Your task to perform on an android device: change notification settings in the gmail app Image 0: 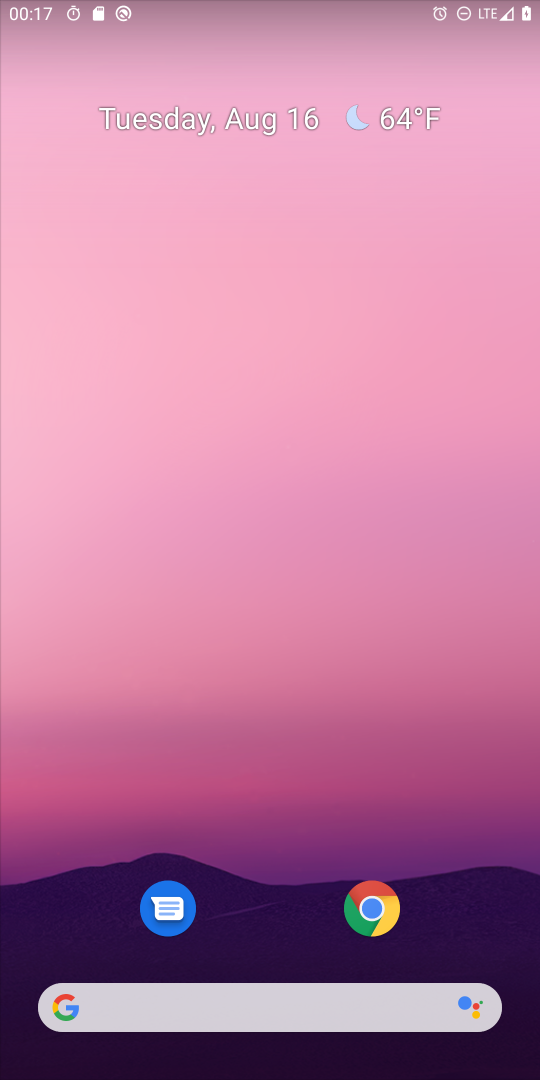
Step 0: drag from (251, 941) to (277, 182)
Your task to perform on an android device: change notification settings in the gmail app Image 1: 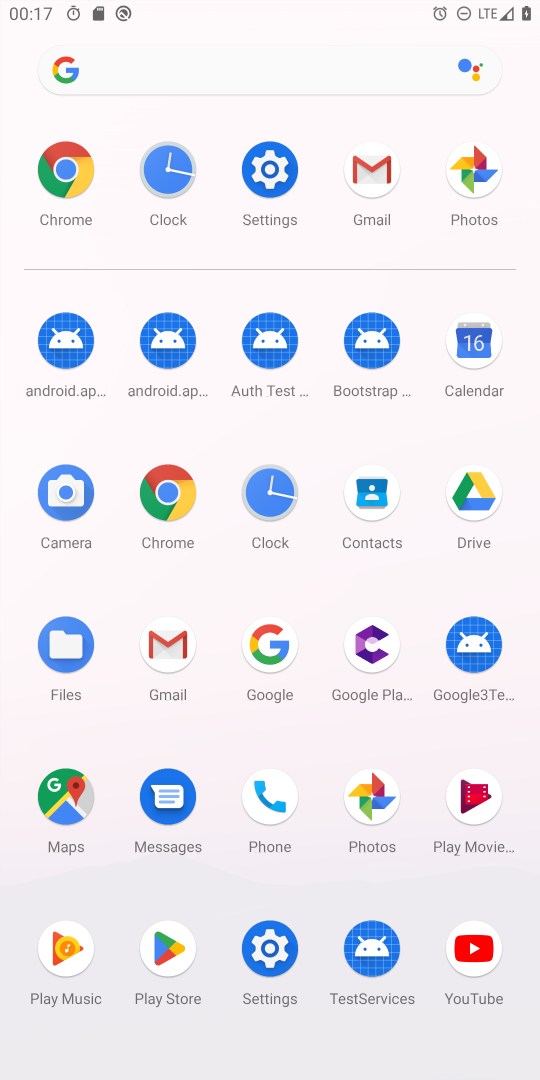
Step 1: click (354, 189)
Your task to perform on an android device: change notification settings in the gmail app Image 2: 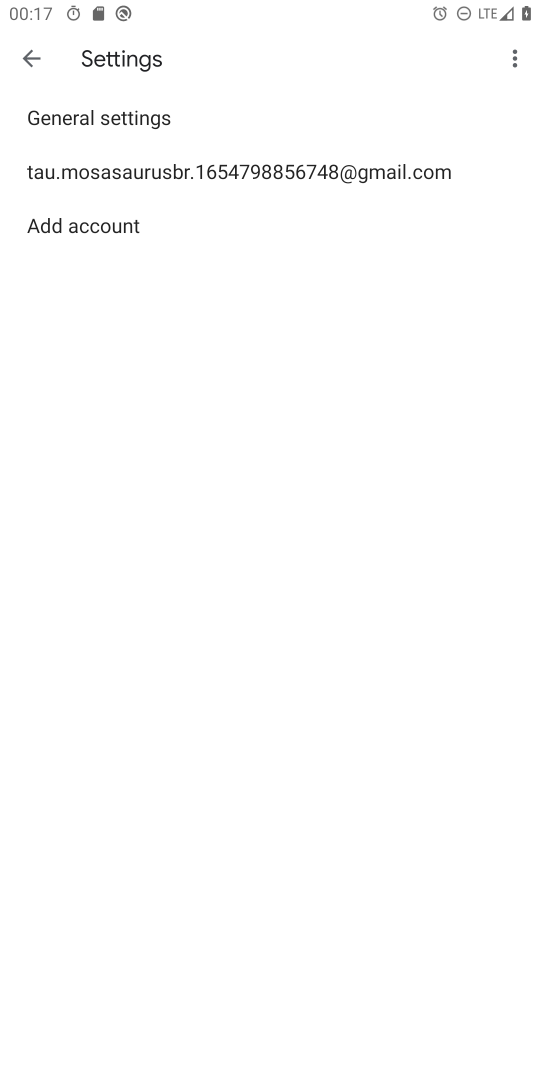
Step 2: click (313, 183)
Your task to perform on an android device: change notification settings in the gmail app Image 3: 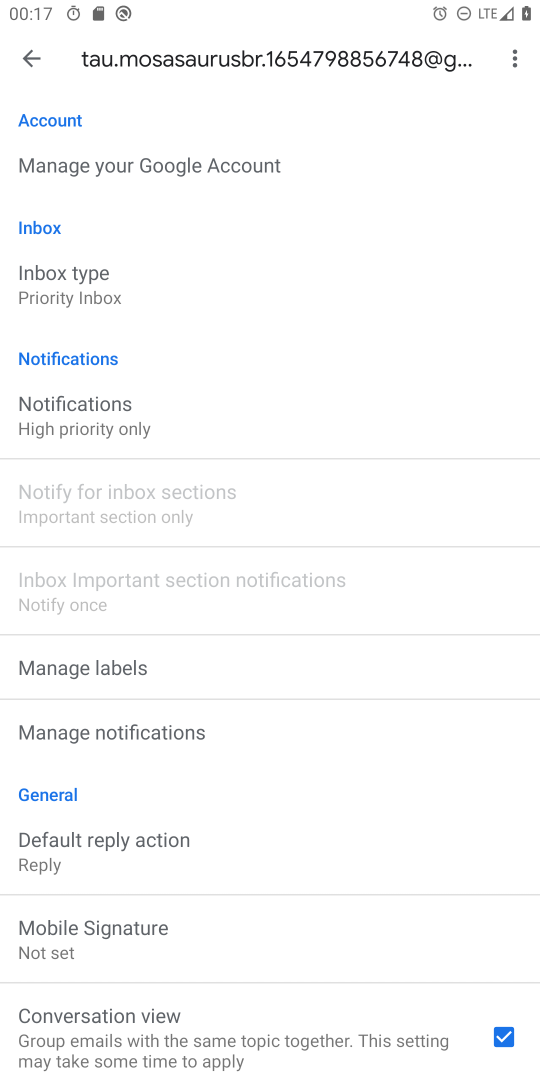
Step 3: click (119, 473)
Your task to perform on an android device: change notification settings in the gmail app Image 4: 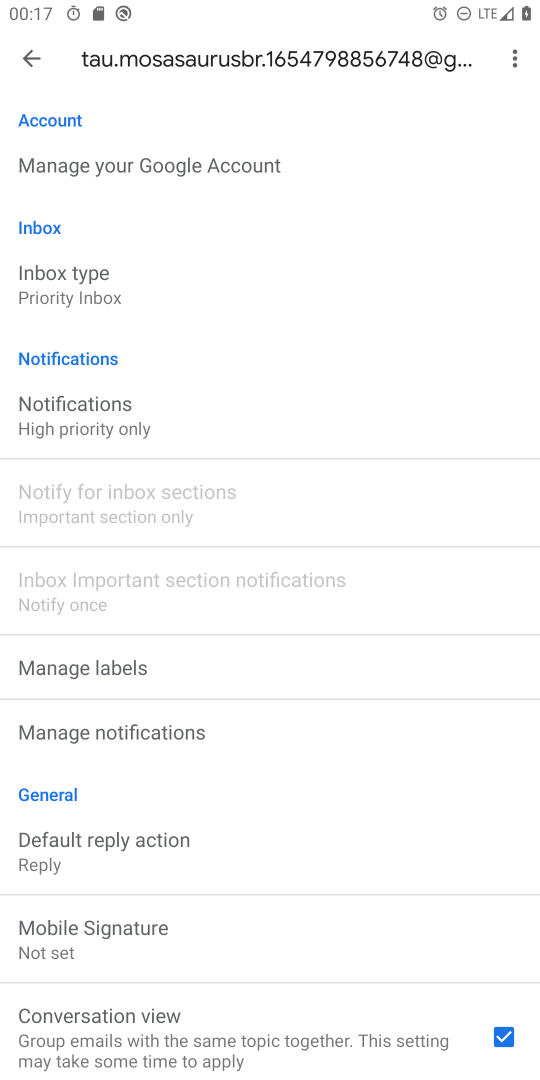
Step 4: click (115, 432)
Your task to perform on an android device: change notification settings in the gmail app Image 5: 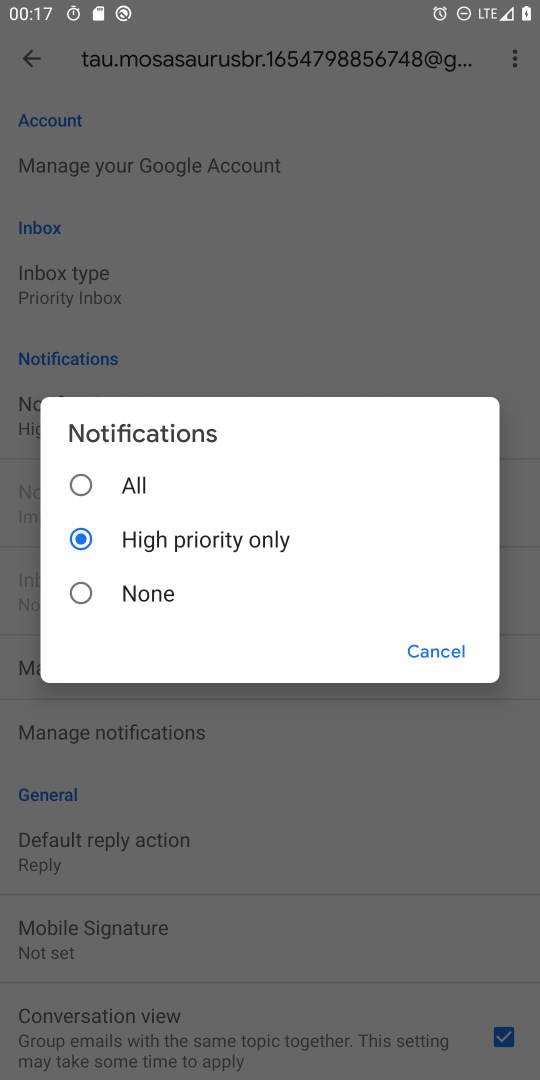
Step 5: click (155, 588)
Your task to perform on an android device: change notification settings in the gmail app Image 6: 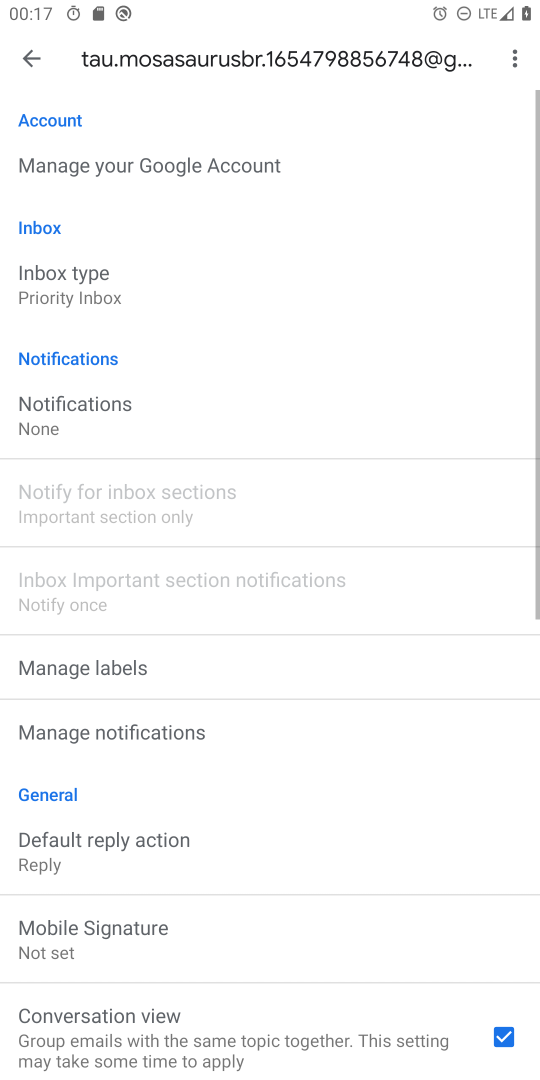
Step 6: task complete